Your task to perform on an android device: add a contact in the contacts app Image 0: 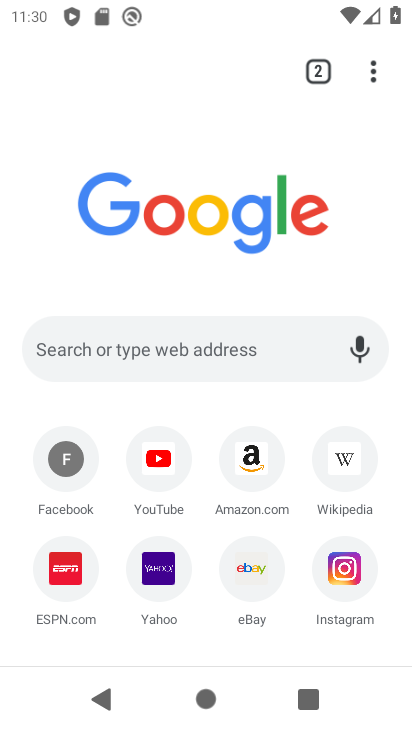
Step 0: press home button
Your task to perform on an android device: add a contact in the contacts app Image 1: 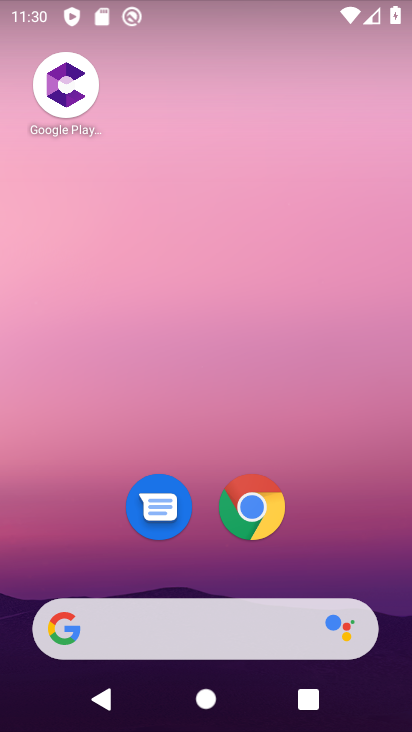
Step 1: drag from (318, 584) to (325, 133)
Your task to perform on an android device: add a contact in the contacts app Image 2: 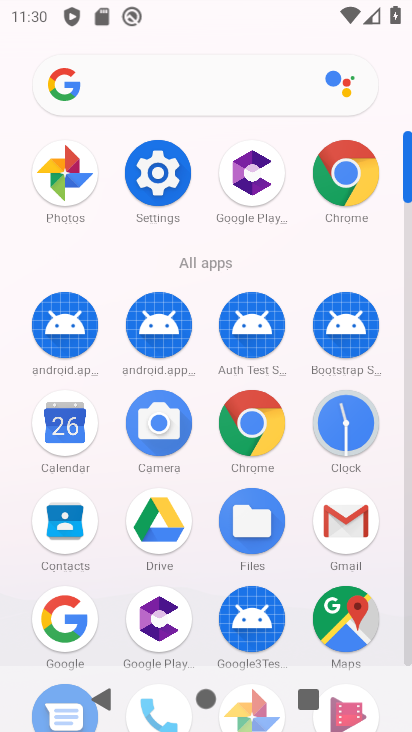
Step 2: click (74, 529)
Your task to perform on an android device: add a contact in the contacts app Image 3: 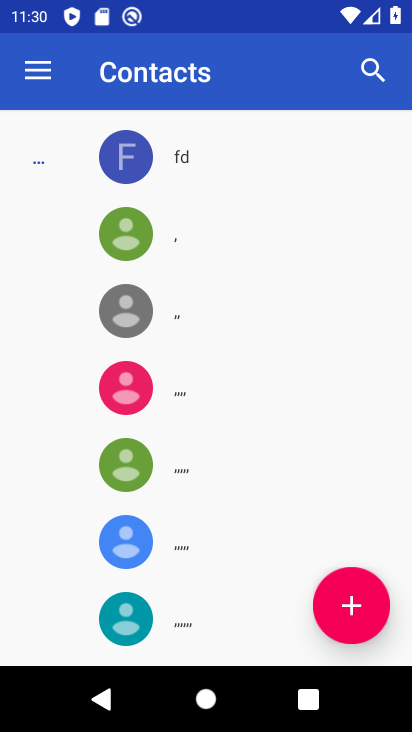
Step 3: click (360, 595)
Your task to perform on an android device: add a contact in the contacts app Image 4: 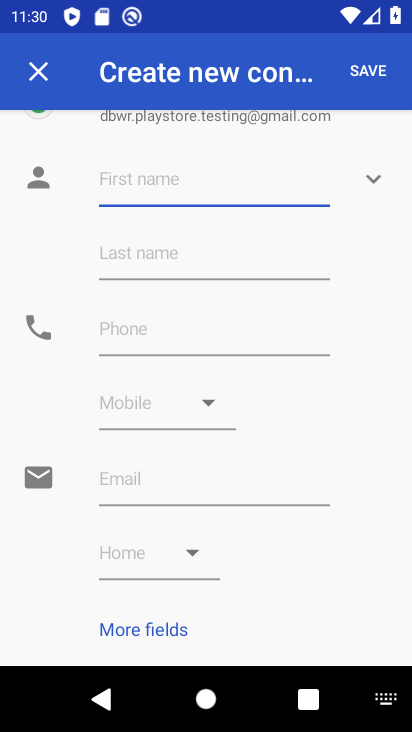
Step 4: click (224, 179)
Your task to perform on an android device: add a contact in the contacts app Image 5: 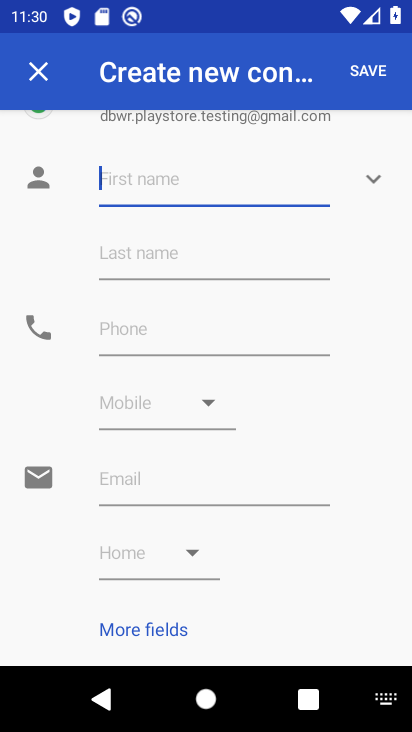
Step 5: type "hhhhjhj"
Your task to perform on an android device: add a contact in the contacts app Image 6: 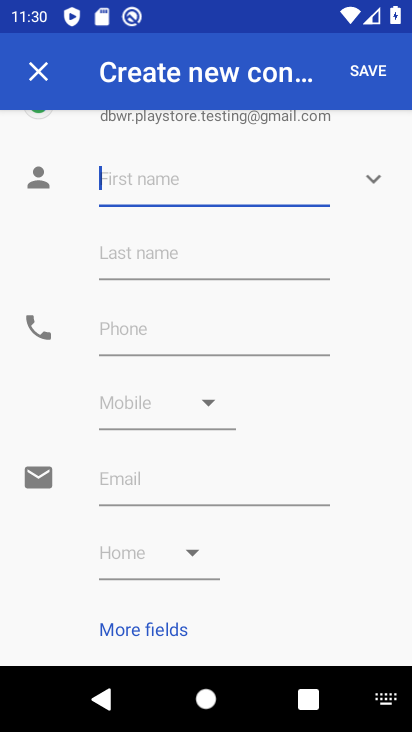
Step 6: click (377, 71)
Your task to perform on an android device: add a contact in the contacts app Image 7: 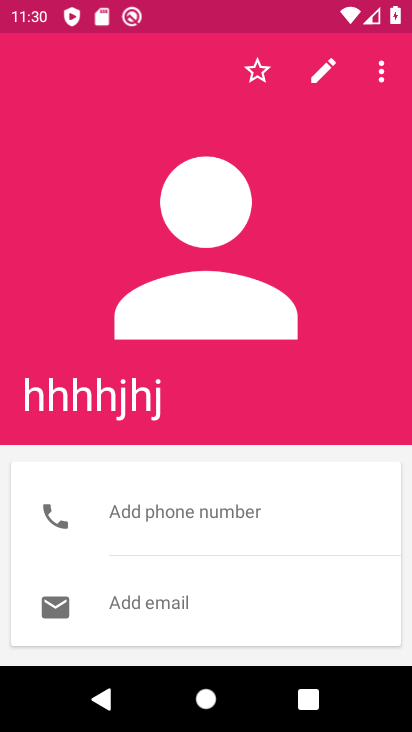
Step 7: task complete